Your task to perform on an android device: Clear the shopping cart on walmart.com. Add "macbook pro 15 inch" to the cart on walmart.com Image 0: 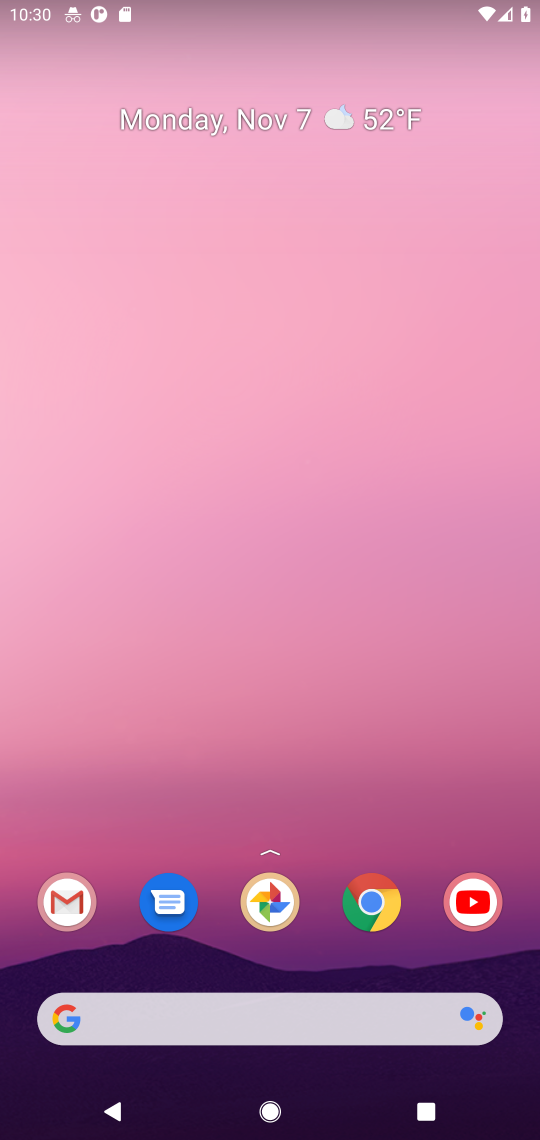
Step 0: click (375, 907)
Your task to perform on an android device: Clear the shopping cart on walmart.com. Add "macbook pro 15 inch" to the cart on walmart.com Image 1: 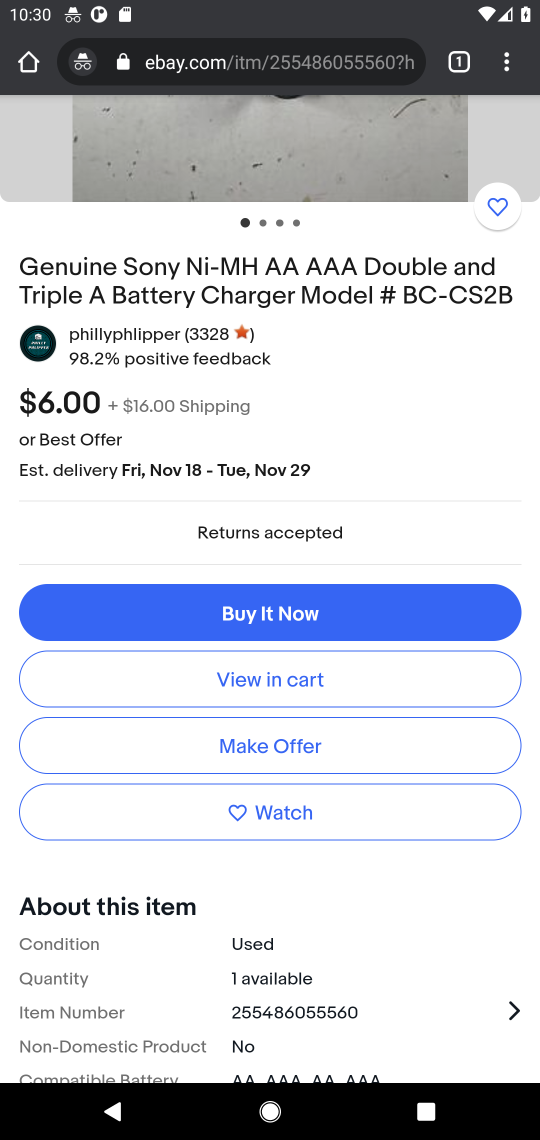
Step 1: click (244, 70)
Your task to perform on an android device: Clear the shopping cart on walmart.com. Add "macbook pro 15 inch" to the cart on walmart.com Image 2: 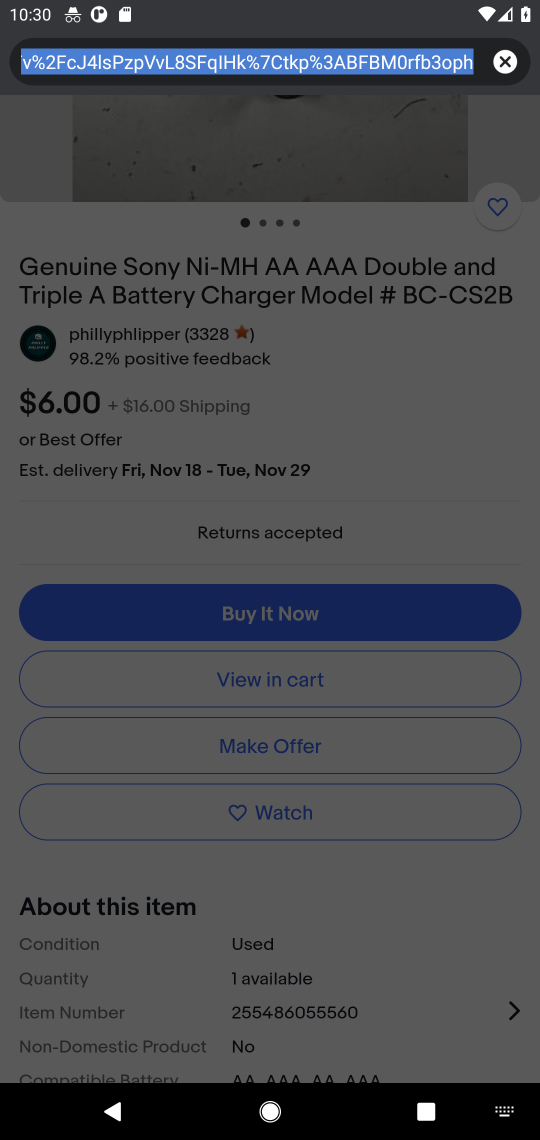
Step 2: type "walmart.com"
Your task to perform on an android device: Clear the shopping cart on walmart.com. Add "macbook pro 15 inch" to the cart on walmart.com Image 3: 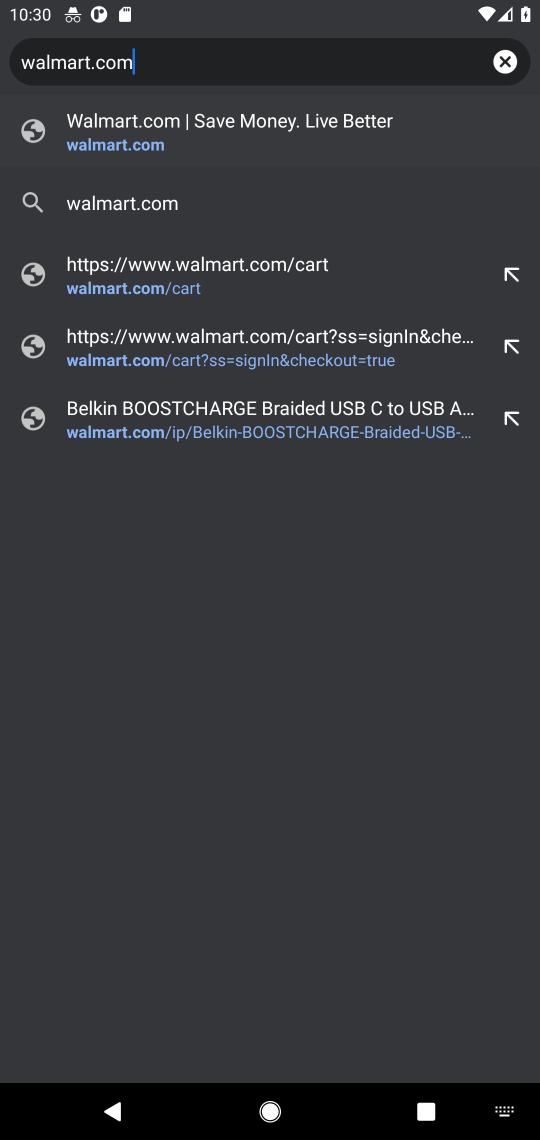
Step 3: click (97, 152)
Your task to perform on an android device: Clear the shopping cart on walmart.com. Add "macbook pro 15 inch" to the cart on walmart.com Image 4: 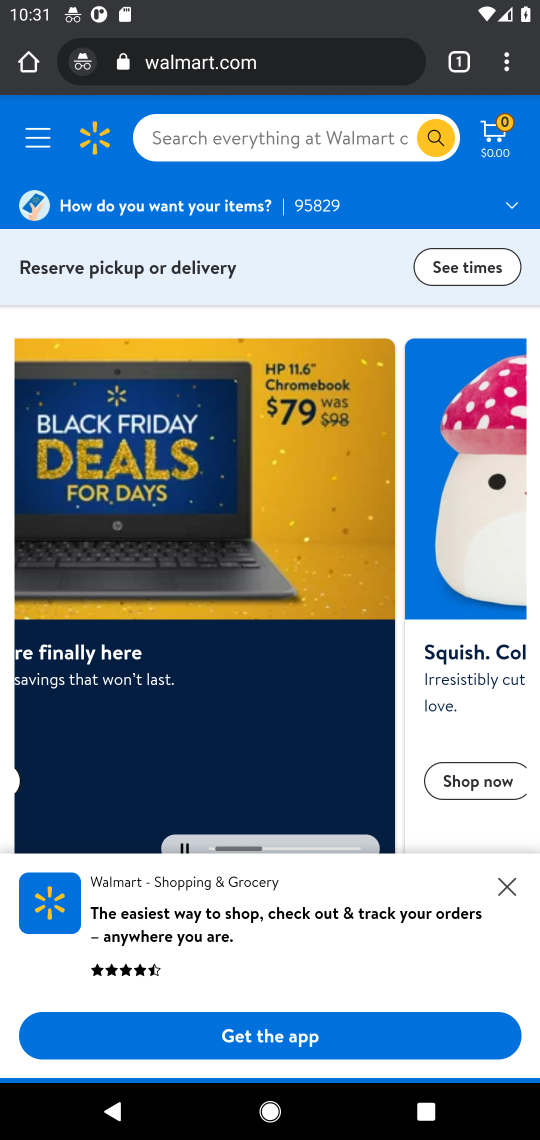
Step 4: click (489, 140)
Your task to perform on an android device: Clear the shopping cart on walmart.com. Add "macbook pro 15 inch" to the cart on walmart.com Image 5: 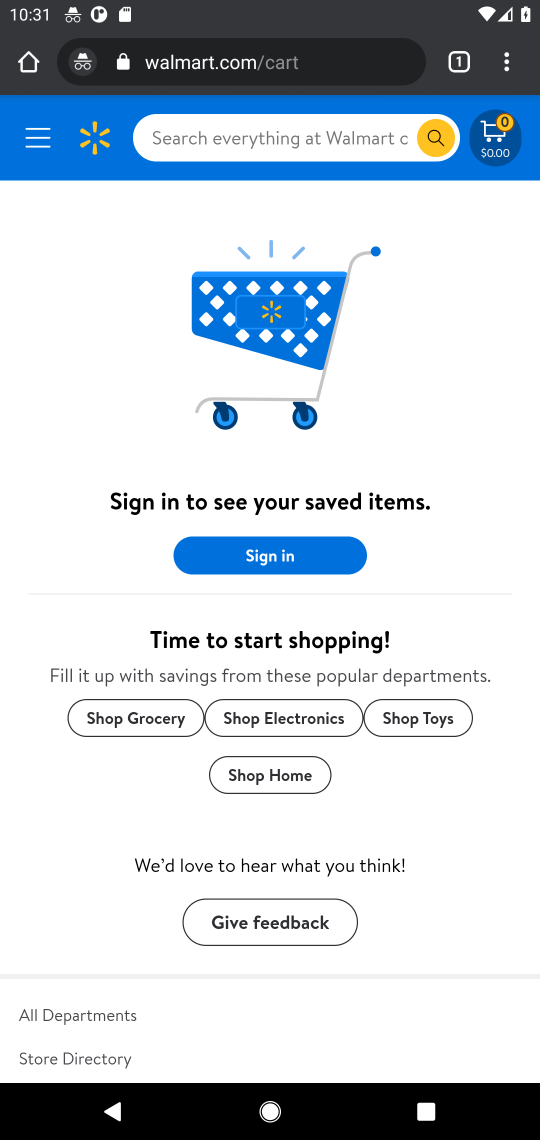
Step 5: click (262, 142)
Your task to perform on an android device: Clear the shopping cart on walmart.com. Add "macbook pro 15 inch" to the cart on walmart.com Image 6: 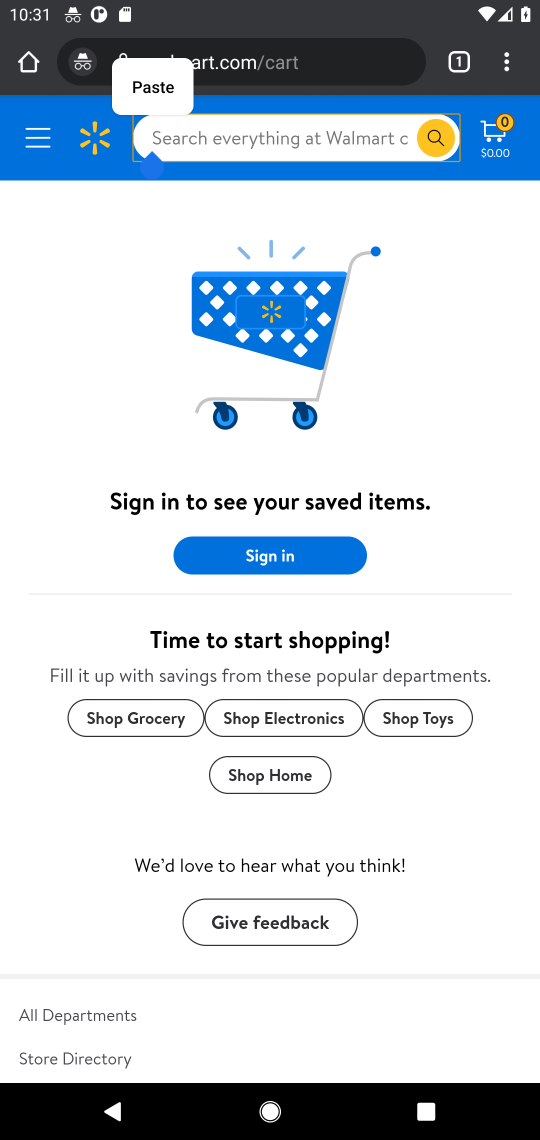
Step 6: type "macbook pro 15 inch"
Your task to perform on an android device: Clear the shopping cart on walmart.com. Add "macbook pro 15 inch" to the cart on walmart.com Image 7: 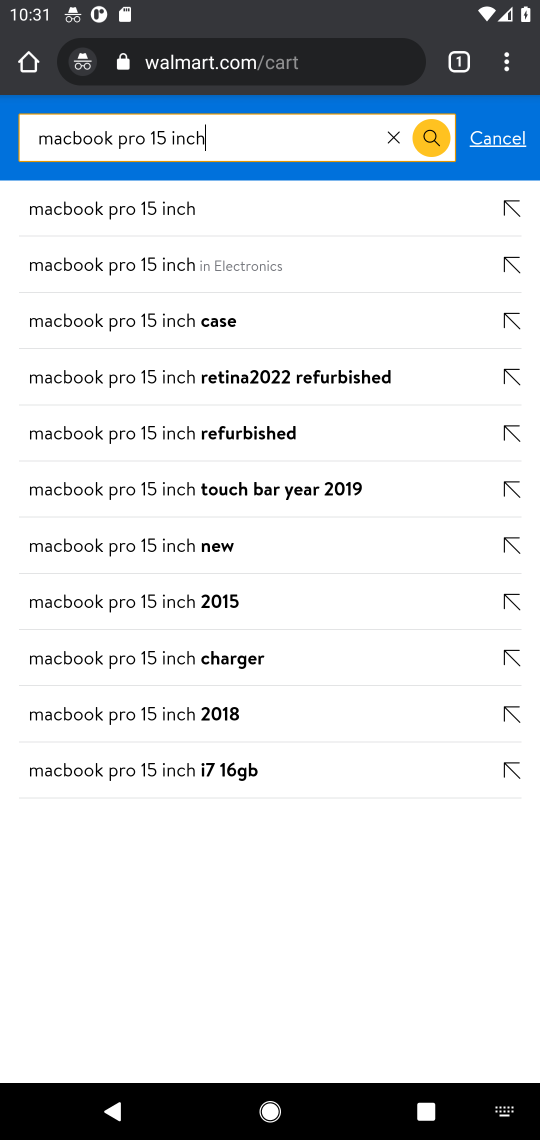
Step 7: click (114, 207)
Your task to perform on an android device: Clear the shopping cart on walmart.com. Add "macbook pro 15 inch" to the cart on walmart.com Image 8: 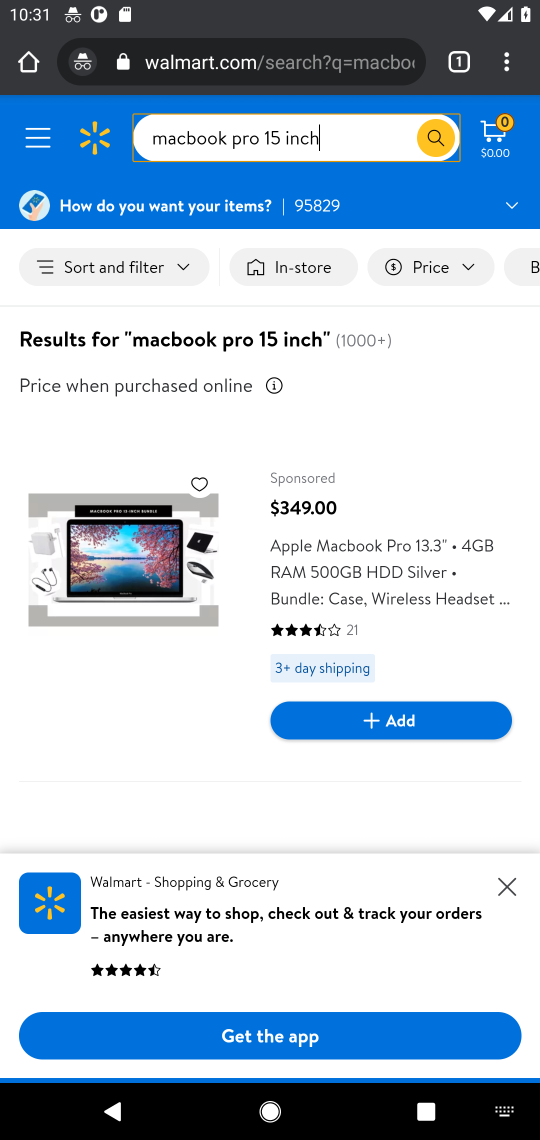
Step 8: drag from (171, 723) to (141, 318)
Your task to perform on an android device: Clear the shopping cart on walmart.com. Add "macbook pro 15 inch" to the cart on walmart.com Image 9: 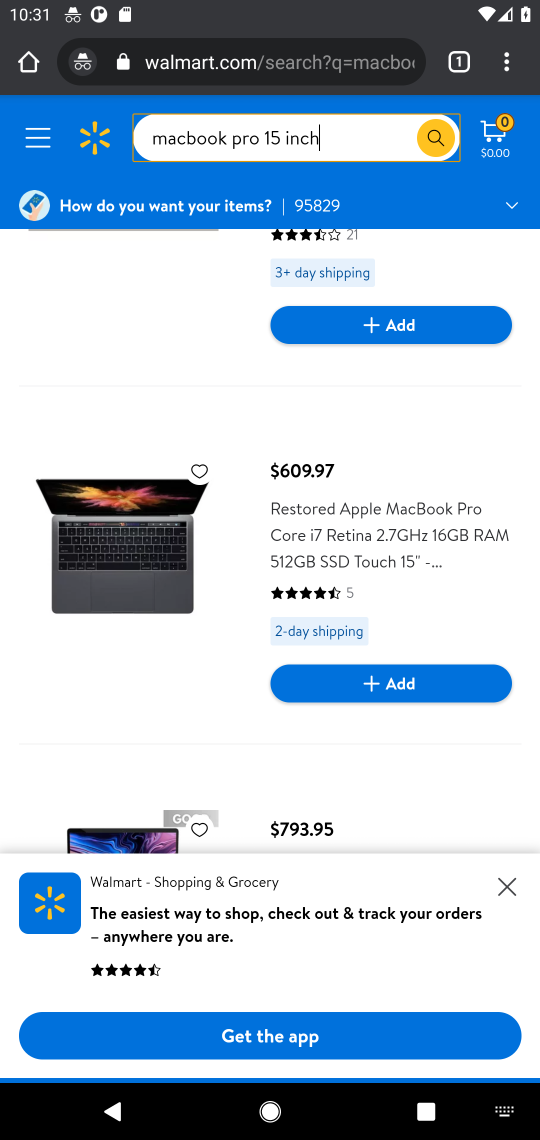
Step 9: drag from (207, 685) to (199, 506)
Your task to perform on an android device: Clear the shopping cart on walmart.com. Add "macbook pro 15 inch" to the cart on walmart.com Image 10: 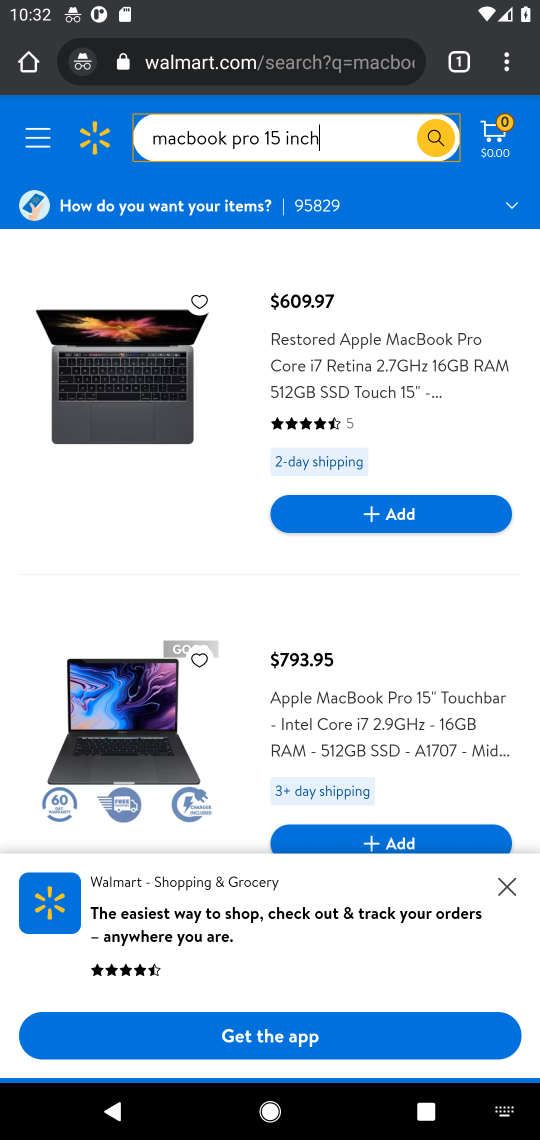
Step 10: drag from (225, 700) to (218, 526)
Your task to perform on an android device: Clear the shopping cart on walmart.com. Add "macbook pro 15 inch" to the cart on walmart.com Image 11: 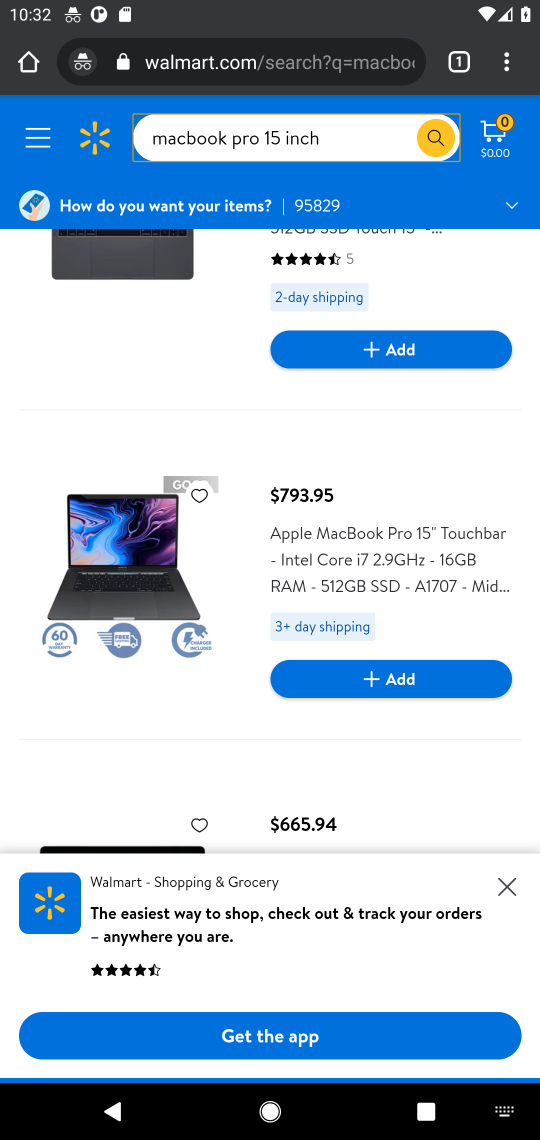
Step 11: click (347, 671)
Your task to perform on an android device: Clear the shopping cart on walmart.com. Add "macbook pro 15 inch" to the cart on walmart.com Image 12: 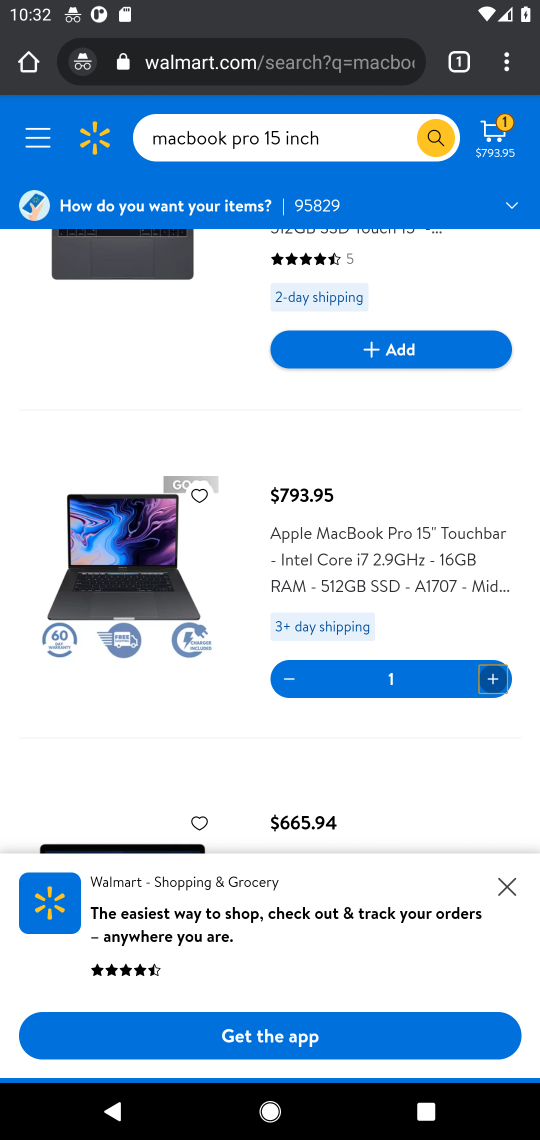
Step 12: task complete